Your task to perform on an android device: change keyboard looks Image 0: 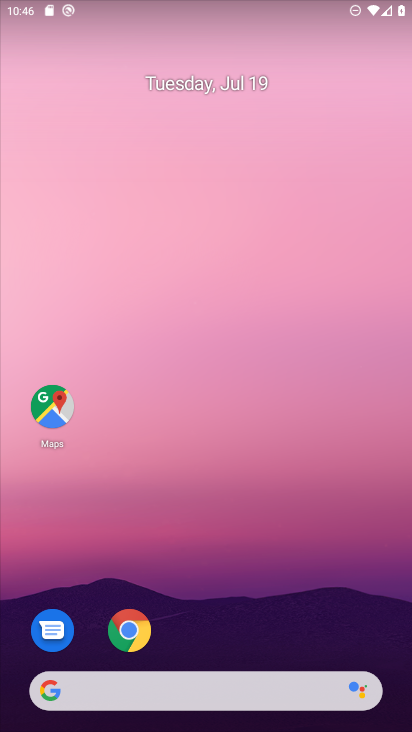
Step 0: drag from (214, 608) to (129, 75)
Your task to perform on an android device: change keyboard looks Image 1: 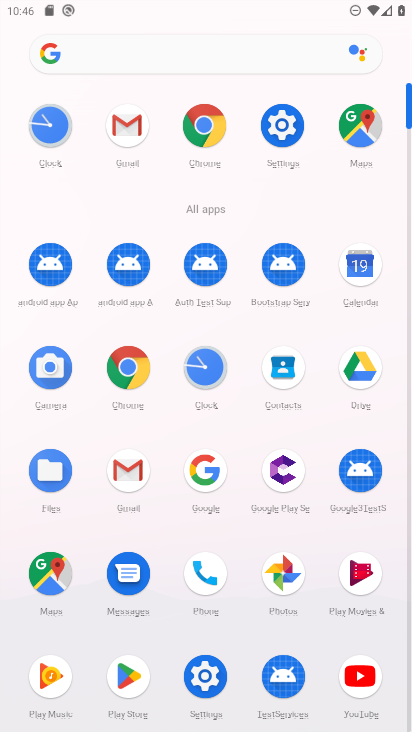
Step 1: click (274, 114)
Your task to perform on an android device: change keyboard looks Image 2: 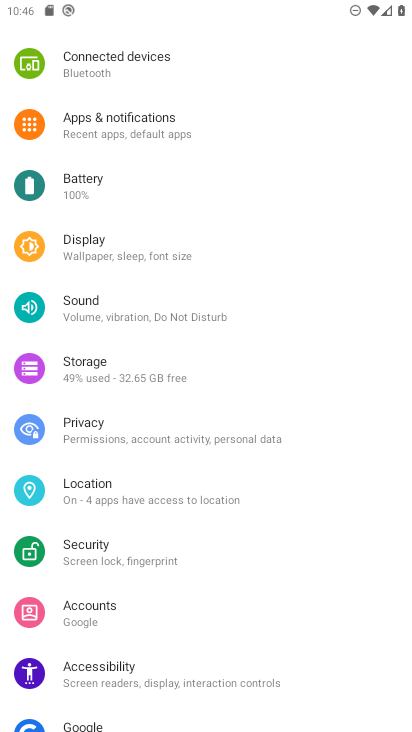
Step 2: drag from (157, 606) to (153, 165)
Your task to perform on an android device: change keyboard looks Image 3: 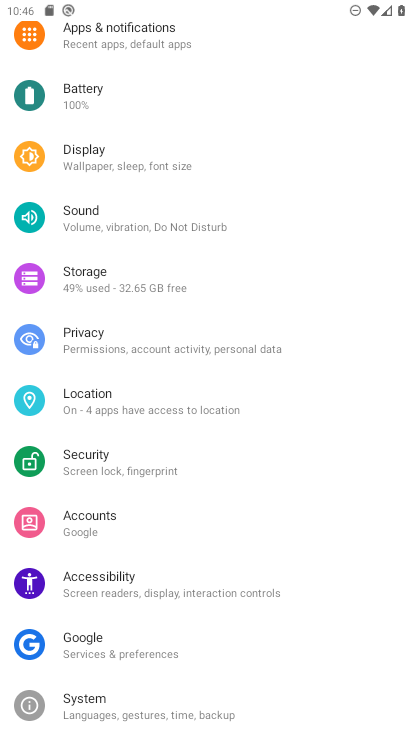
Step 3: drag from (174, 548) to (155, 197)
Your task to perform on an android device: change keyboard looks Image 4: 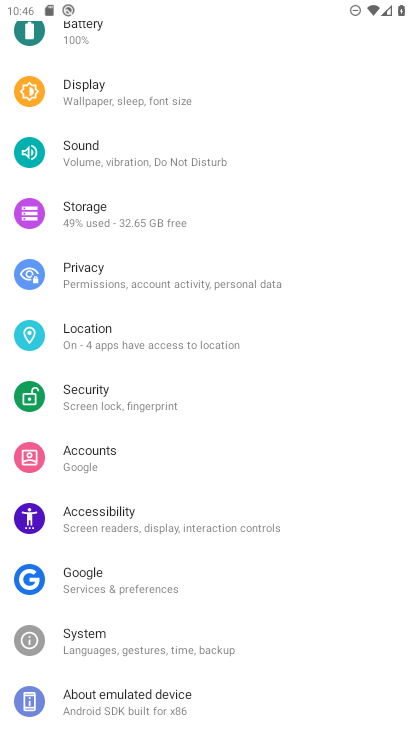
Step 4: click (150, 694)
Your task to perform on an android device: change keyboard looks Image 5: 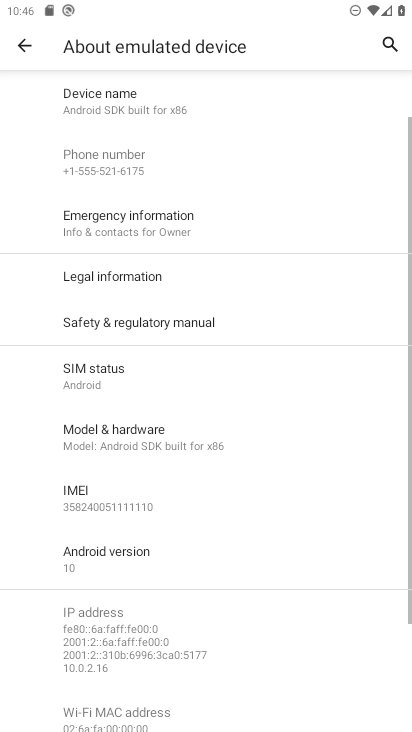
Step 5: drag from (178, 576) to (173, 112)
Your task to perform on an android device: change keyboard looks Image 6: 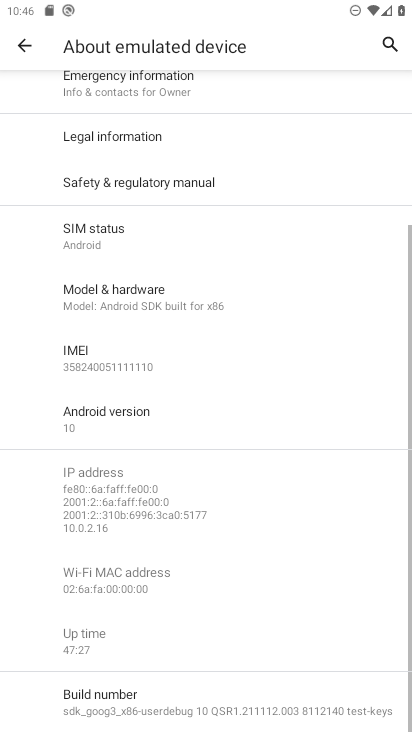
Step 6: click (25, 51)
Your task to perform on an android device: change keyboard looks Image 7: 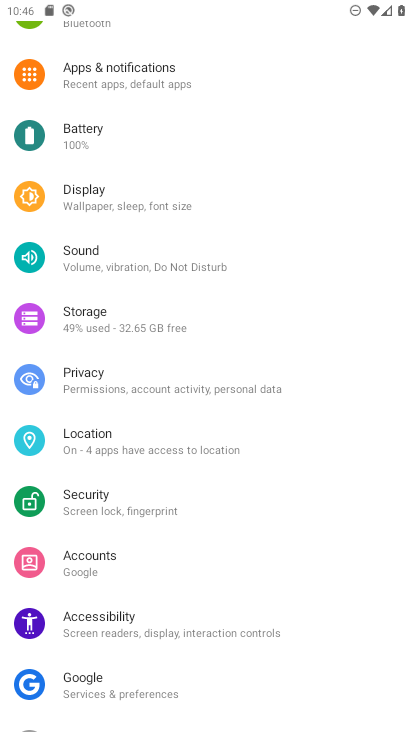
Step 7: drag from (121, 676) to (126, 261)
Your task to perform on an android device: change keyboard looks Image 8: 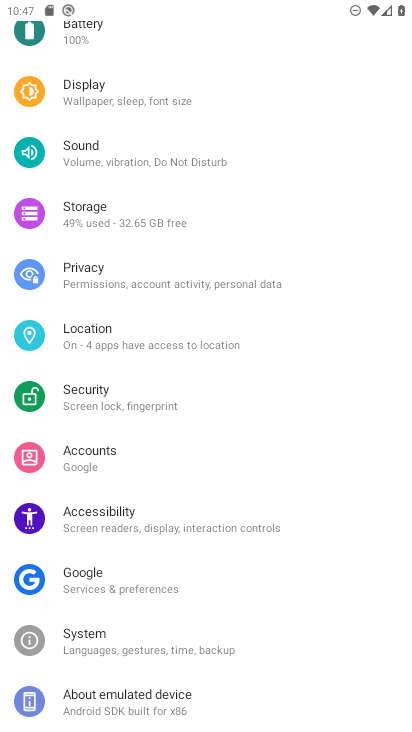
Step 8: click (129, 645)
Your task to perform on an android device: change keyboard looks Image 9: 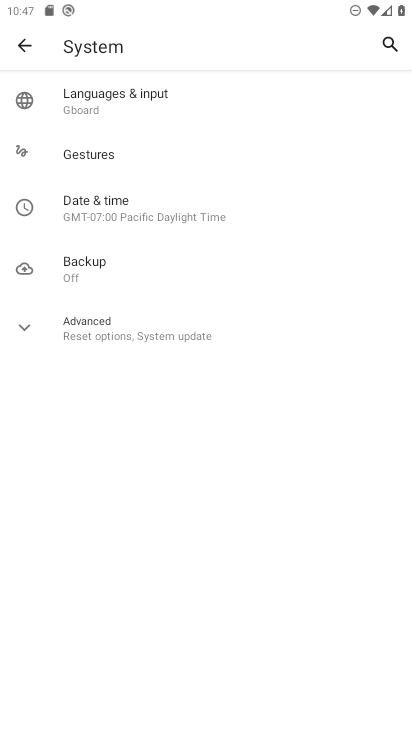
Step 9: click (107, 114)
Your task to perform on an android device: change keyboard looks Image 10: 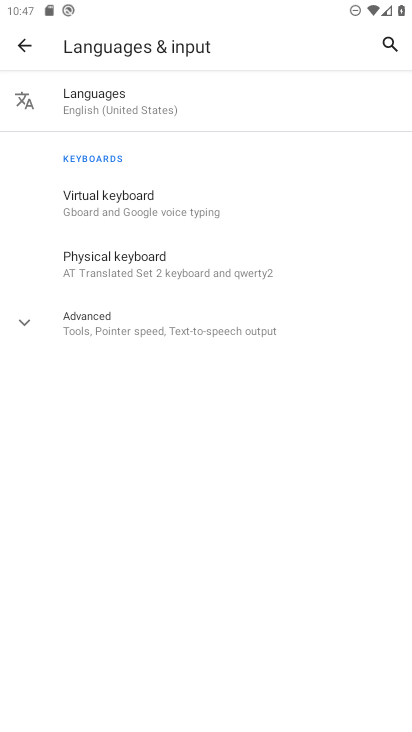
Step 10: click (119, 205)
Your task to perform on an android device: change keyboard looks Image 11: 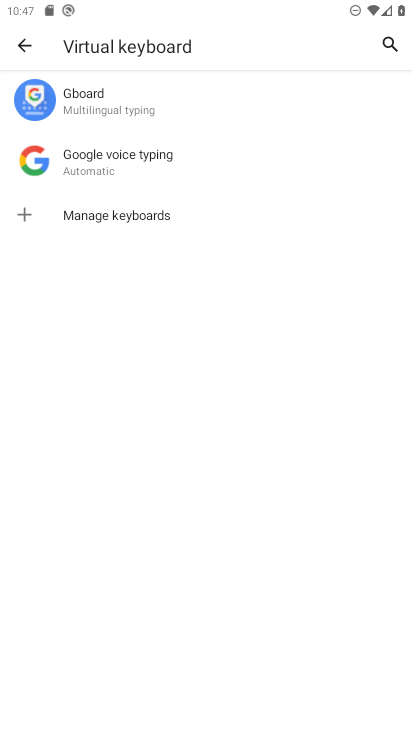
Step 11: click (118, 113)
Your task to perform on an android device: change keyboard looks Image 12: 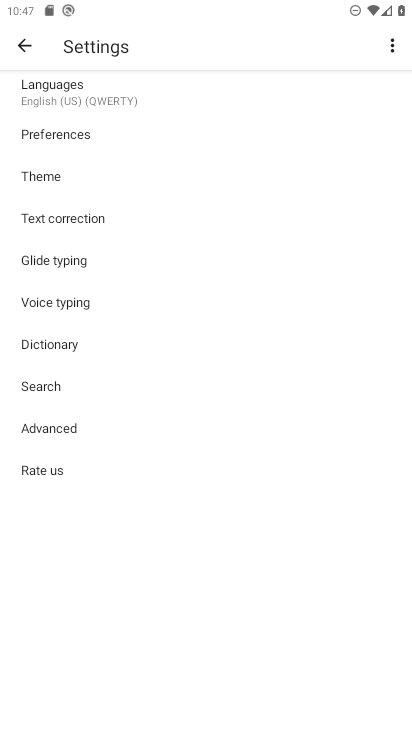
Step 12: click (44, 185)
Your task to perform on an android device: change keyboard looks Image 13: 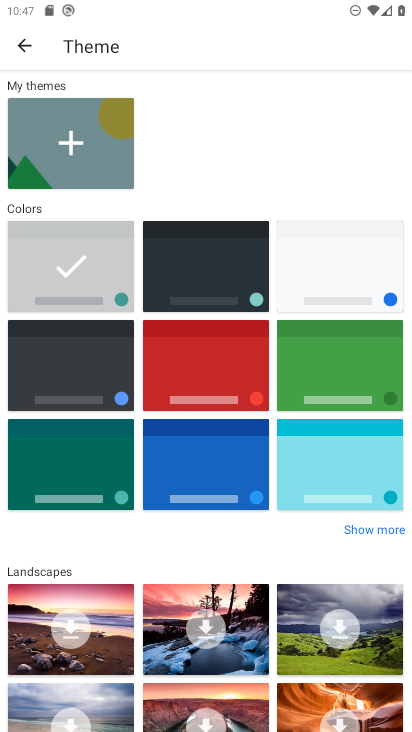
Step 13: click (266, 374)
Your task to perform on an android device: change keyboard looks Image 14: 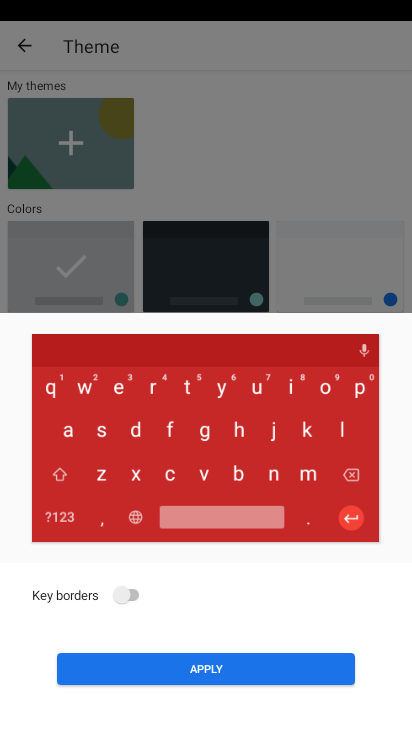
Step 14: click (286, 674)
Your task to perform on an android device: change keyboard looks Image 15: 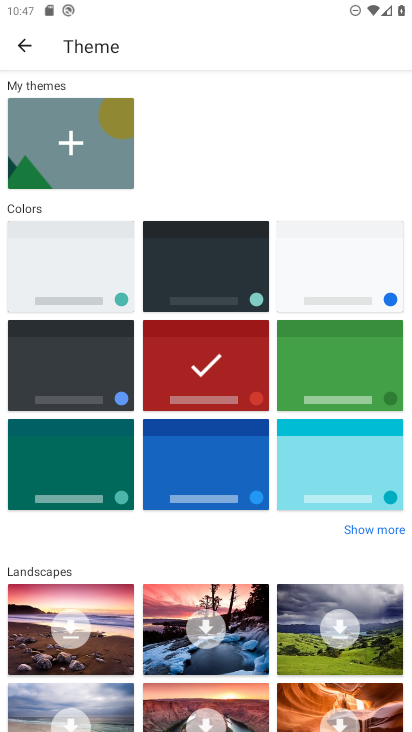
Step 15: task complete